Your task to perform on an android device: see creations saved in the google photos Image 0: 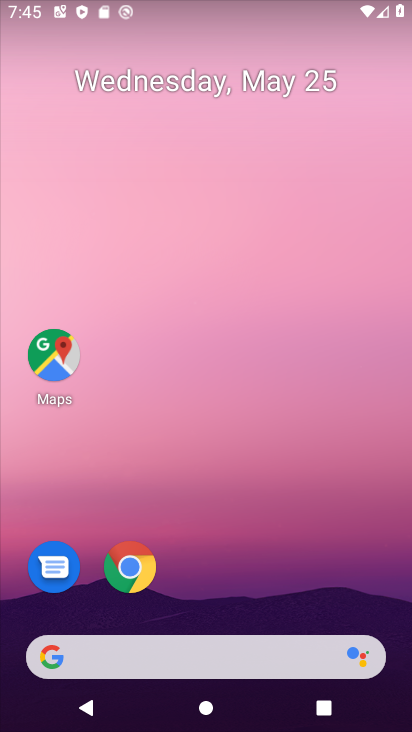
Step 0: drag from (268, 617) to (282, 0)
Your task to perform on an android device: see creations saved in the google photos Image 1: 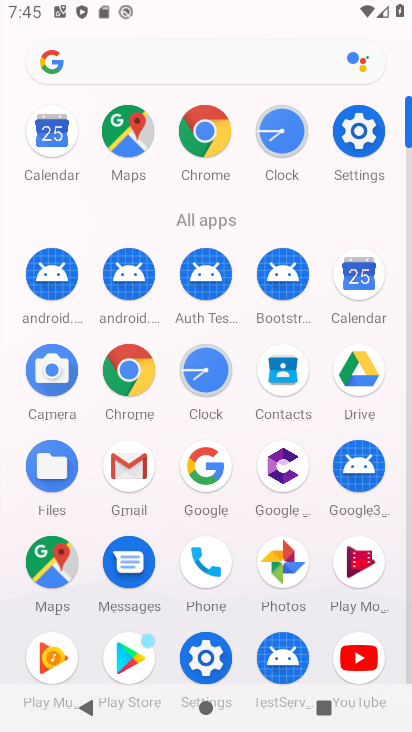
Step 1: click (285, 543)
Your task to perform on an android device: see creations saved in the google photos Image 2: 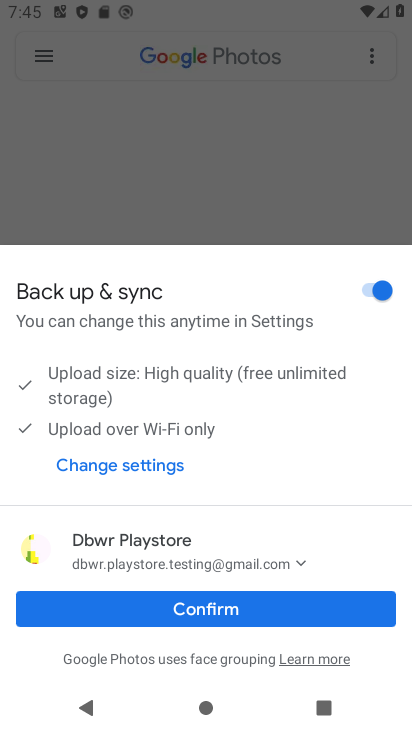
Step 2: click (229, 620)
Your task to perform on an android device: see creations saved in the google photos Image 3: 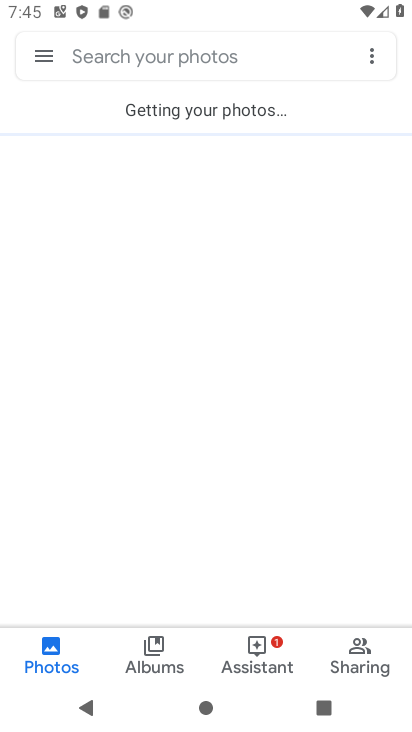
Step 3: click (374, 50)
Your task to perform on an android device: see creations saved in the google photos Image 4: 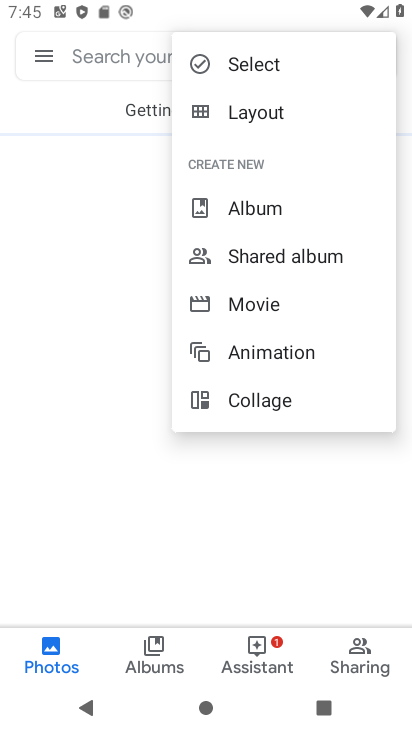
Step 4: click (42, 59)
Your task to perform on an android device: see creations saved in the google photos Image 5: 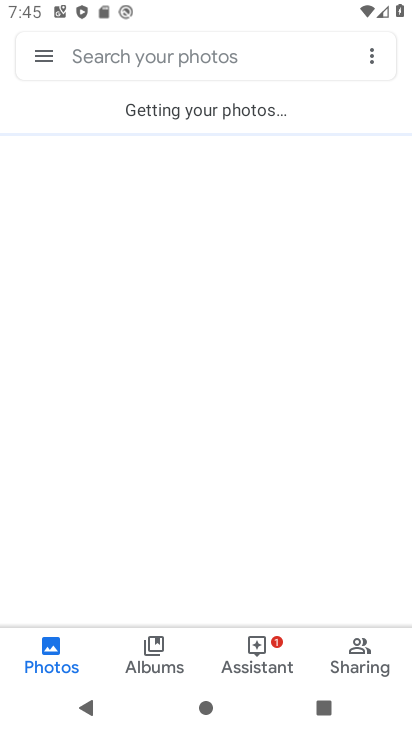
Step 5: click (44, 66)
Your task to perform on an android device: see creations saved in the google photos Image 6: 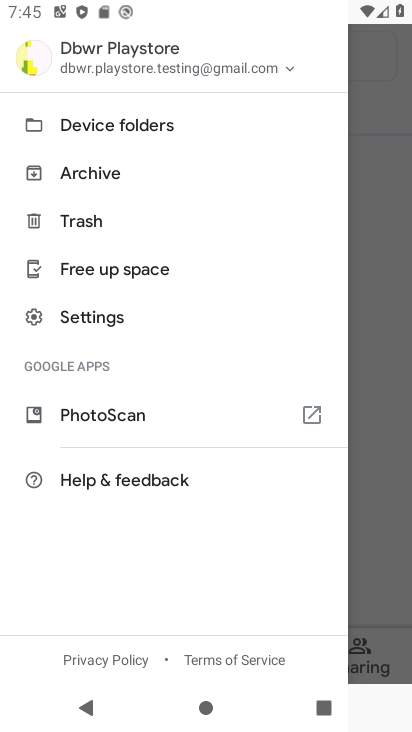
Step 6: click (81, 178)
Your task to perform on an android device: see creations saved in the google photos Image 7: 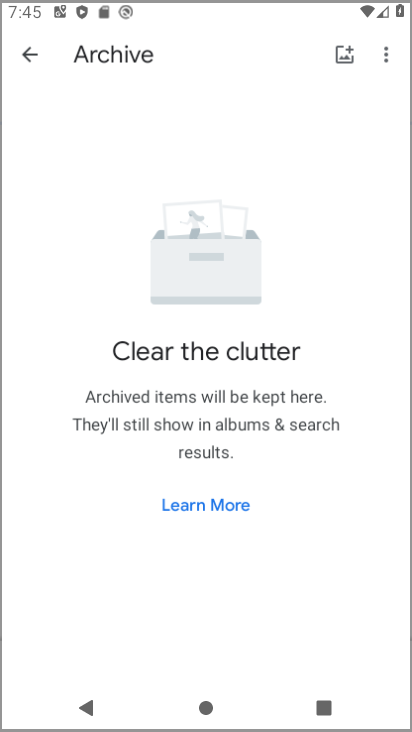
Step 7: task complete